Your task to perform on an android device: Is it going to rain tomorrow? Image 0: 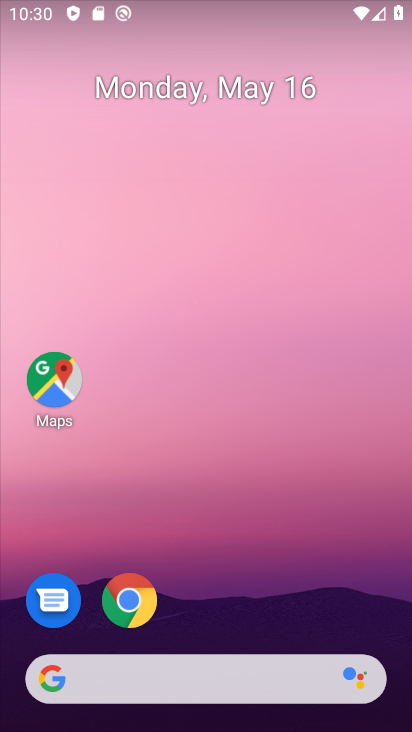
Step 0: click (136, 600)
Your task to perform on an android device: Is it going to rain tomorrow? Image 1: 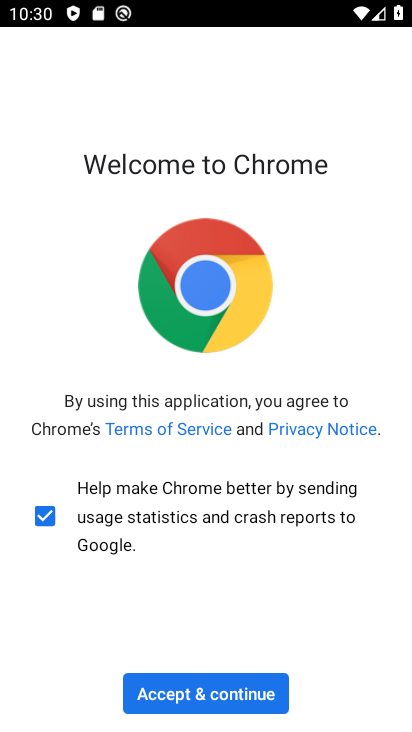
Step 1: click (169, 700)
Your task to perform on an android device: Is it going to rain tomorrow? Image 2: 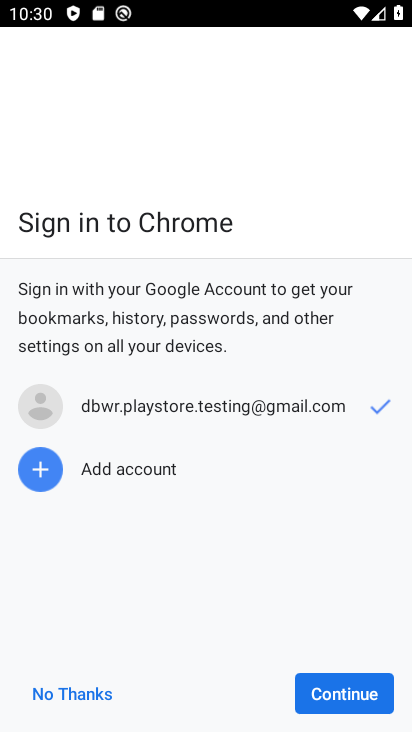
Step 2: click (351, 678)
Your task to perform on an android device: Is it going to rain tomorrow? Image 3: 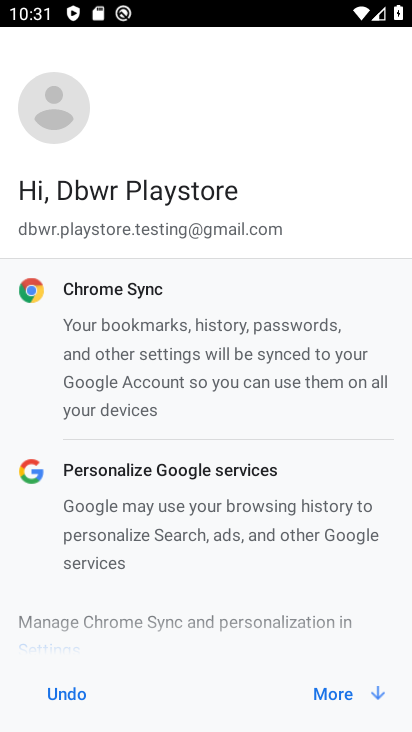
Step 3: click (312, 697)
Your task to perform on an android device: Is it going to rain tomorrow? Image 4: 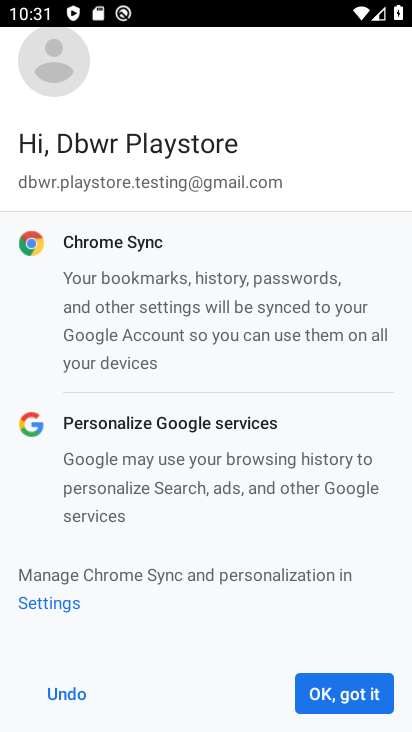
Step 4: click (348, 682)
Your task to perform on an android device: Is it going to rain tomorrow? Image 5: 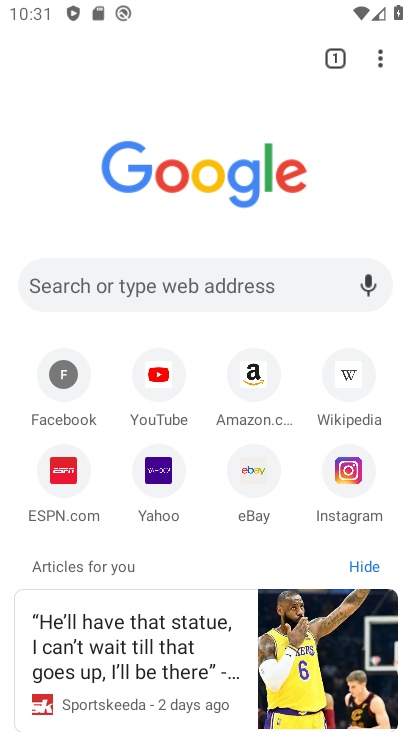
Step 5: click (123, 298)
Your task to perform on an android device: Is it going to rain tomorrow? Image 6: 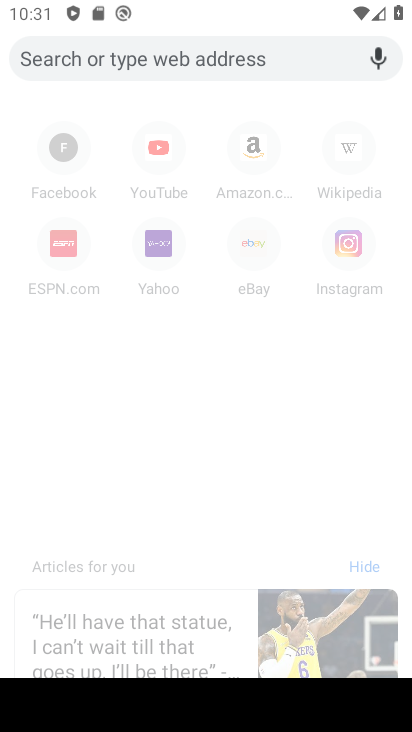
Step 6: type "Is it going to rain tomorrow?"
Your task to perform on an android device: Is it going to rain tomorrow? Image 7: 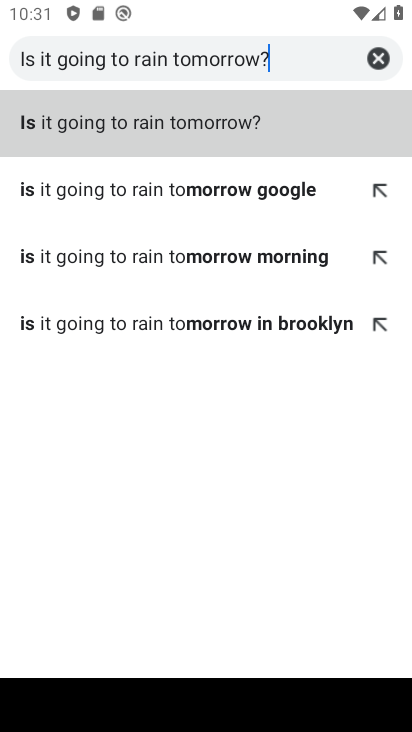
Step 7: click (232, 131)
Your task to perform on an android device: Is it going to rain tomorrow? Image 8: 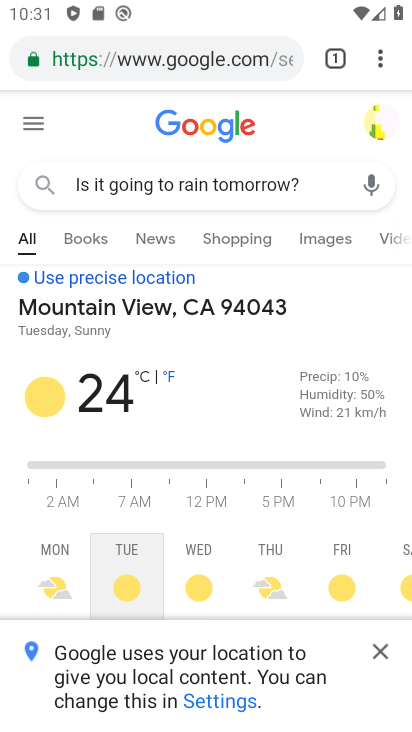
Step 8: task complete